Your task to perform on an android device: open app "Pluto TV - Live TV and Movies" (install if not already installed) and enter user name: "wools@yahoo.com" and password: "misplacing" Image 0: 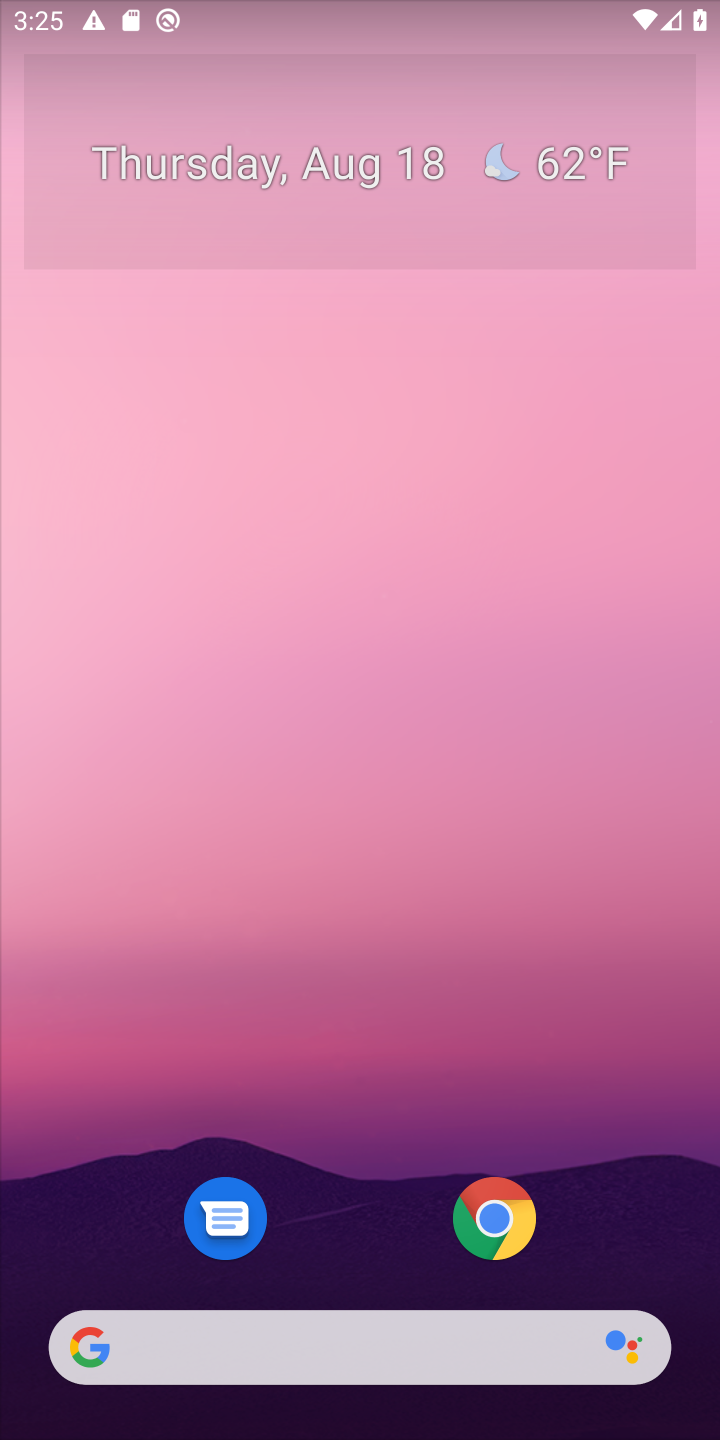
Step 0: drag from (334, 832) to (314, 384)
Your task to perform on an android device: open app "Pluto TV - Live TV and Movies" (install if not already installed) and enter user name: "wools@yahoo.com" and password: "misplacing" Image 1: 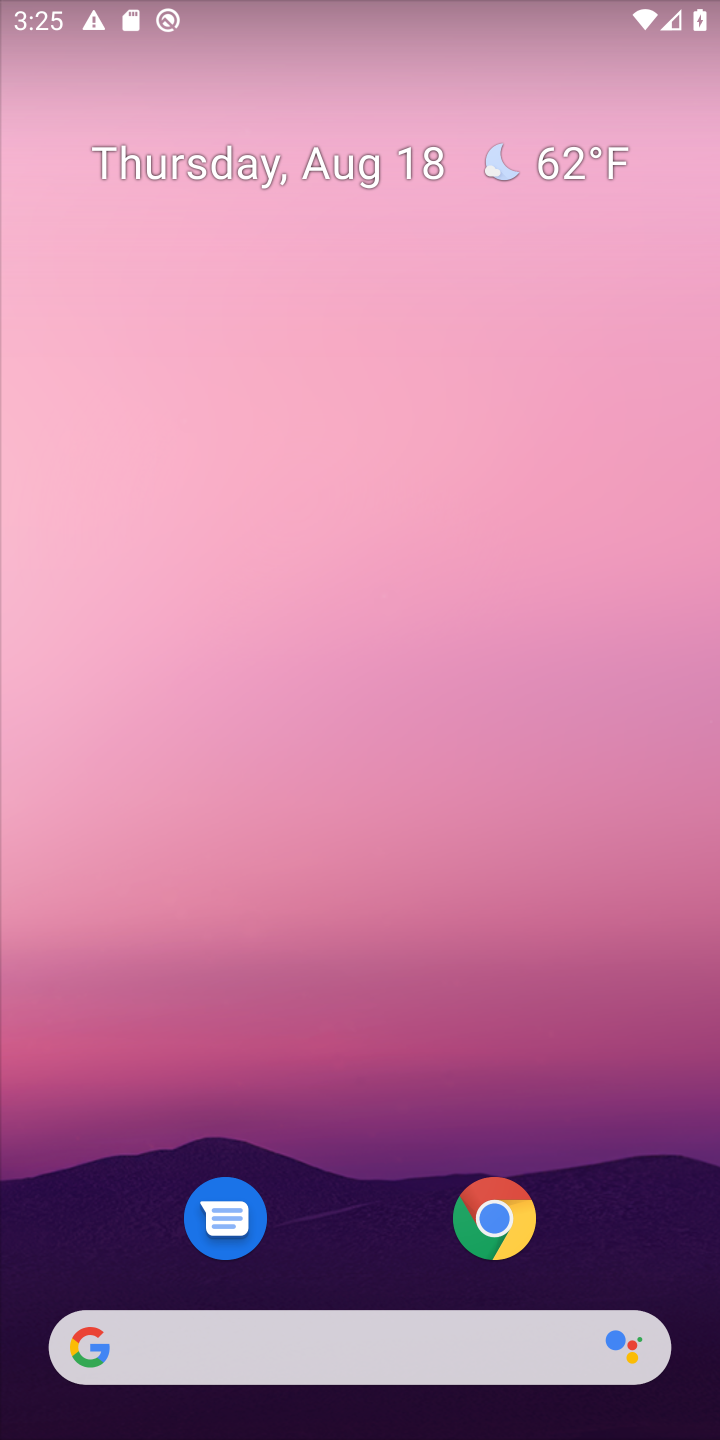
Step 1: drag from (370, 1137) to (367, 336)
Your task to perform on an android device: open app "Pluto TV - Live TV and Movies" (install if not already installed) and enter user name: "wools@yahoo.com" and password: "misplacing" Image 2: 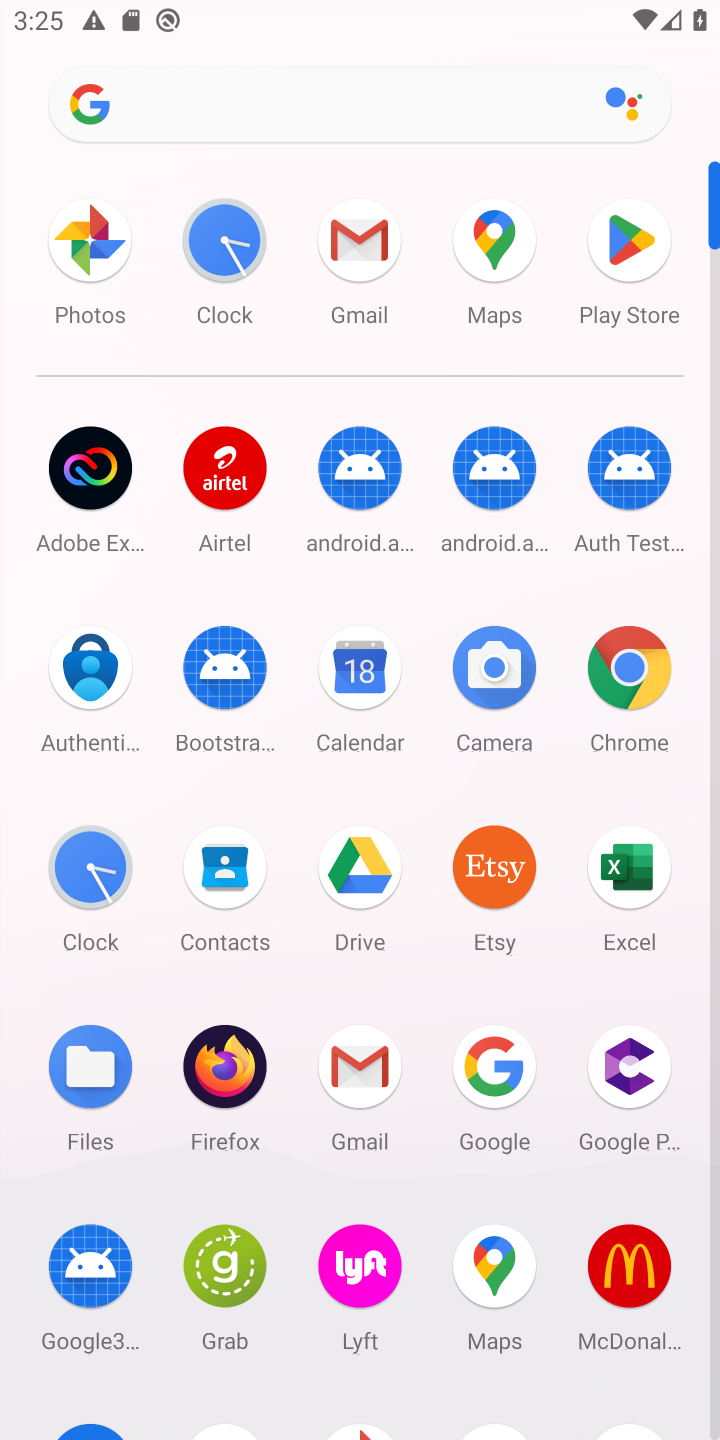
Step 2: click (628, 267)
Your task to perform on an android device: open app "Pluto TV - Live TV and Movies" (install if not already installed) and enter user name: "wools@yahoo.com" and password: "misplacing" Image 3: 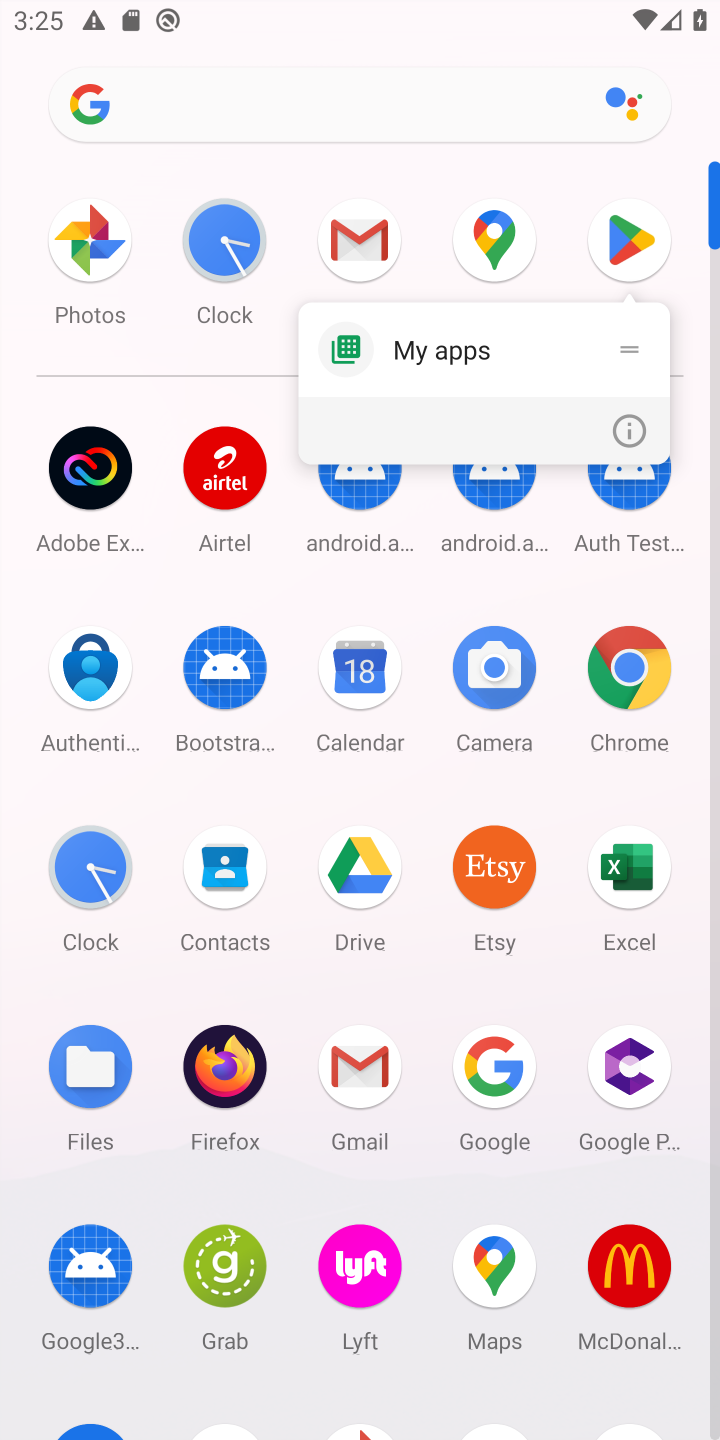
Step 3: click (615, 232)
Your task to perform on an android device: open app "Pluto TV - Live TV and Movies" (install if not already installed) and enter user name: "wools@yahoo.com" and password: "misplacing" Image 4: 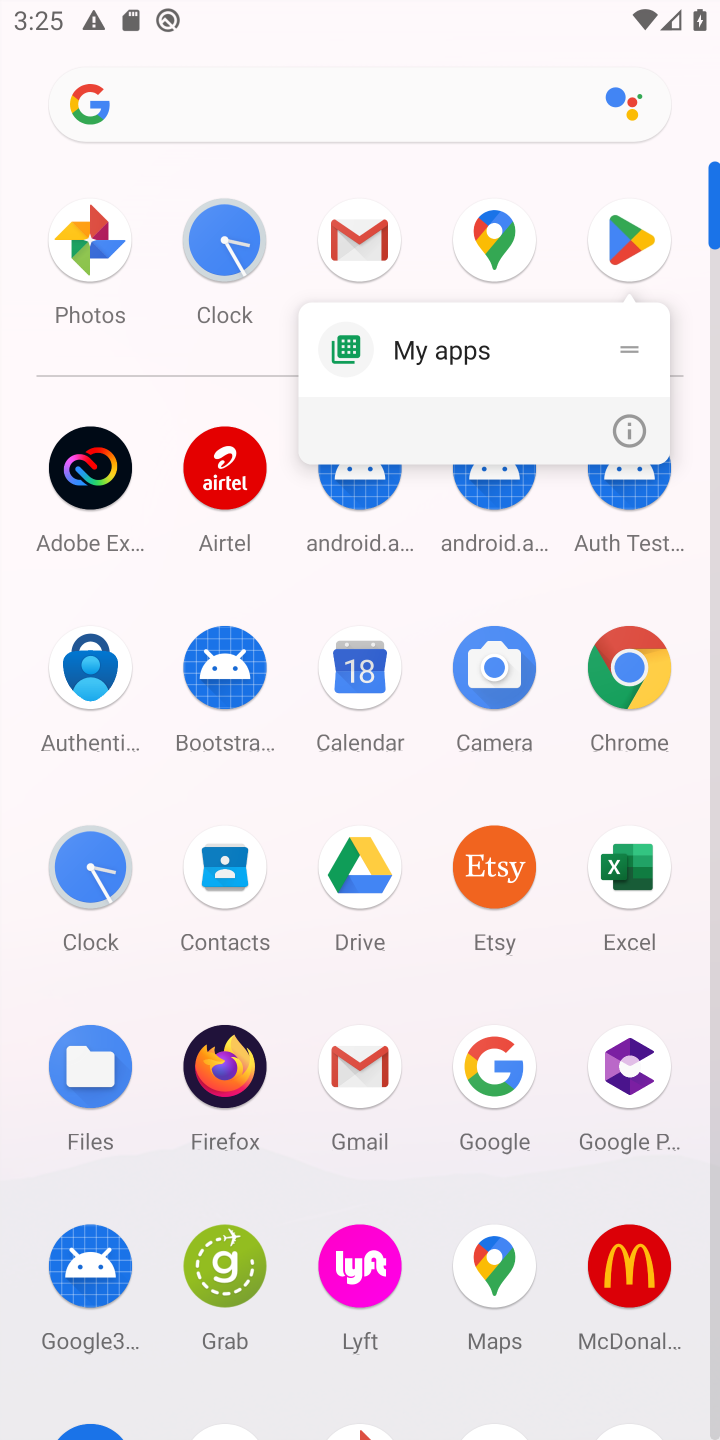
Step 4: click (615, 232)
Your task to perform on an android device: open app "Pluto TV - Live TV and Movies" (install if not already installed) and enter user name: "wools@yahoo.com" and password: "misplacing" Image 5: 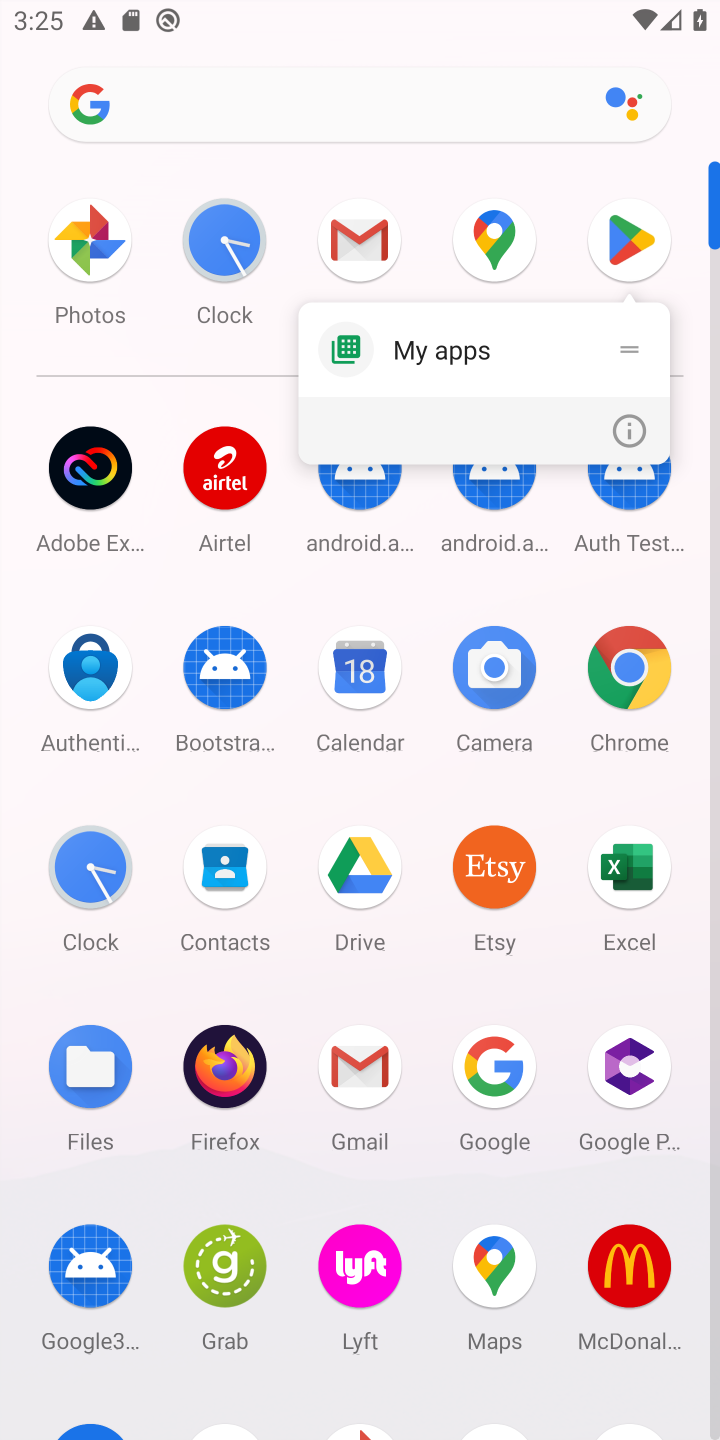
Step 5: click (615, 232)
Your task to perform on an android device: open app "Pluto TV - Live TV and Movies" (install if not already installed) and enter user name: "wools@yahoo.com" and password: "misplacing" Image 6: 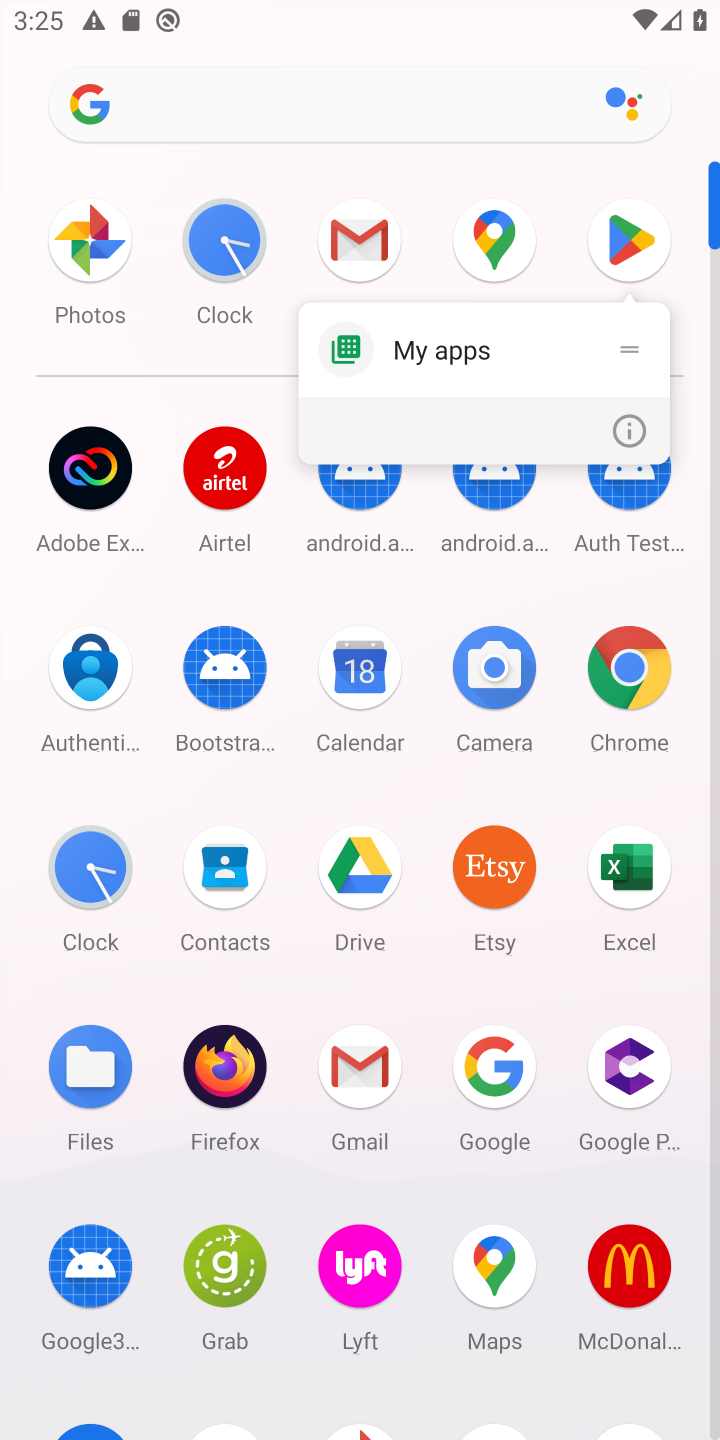
Step 6: click (616, 241)
Your task to perform on an android device: open app "Pluto TV - Live TV and Movies" (install if not already installed) and enter user name: "wools@yahoo.com" and password: "misplacing" Image 7: 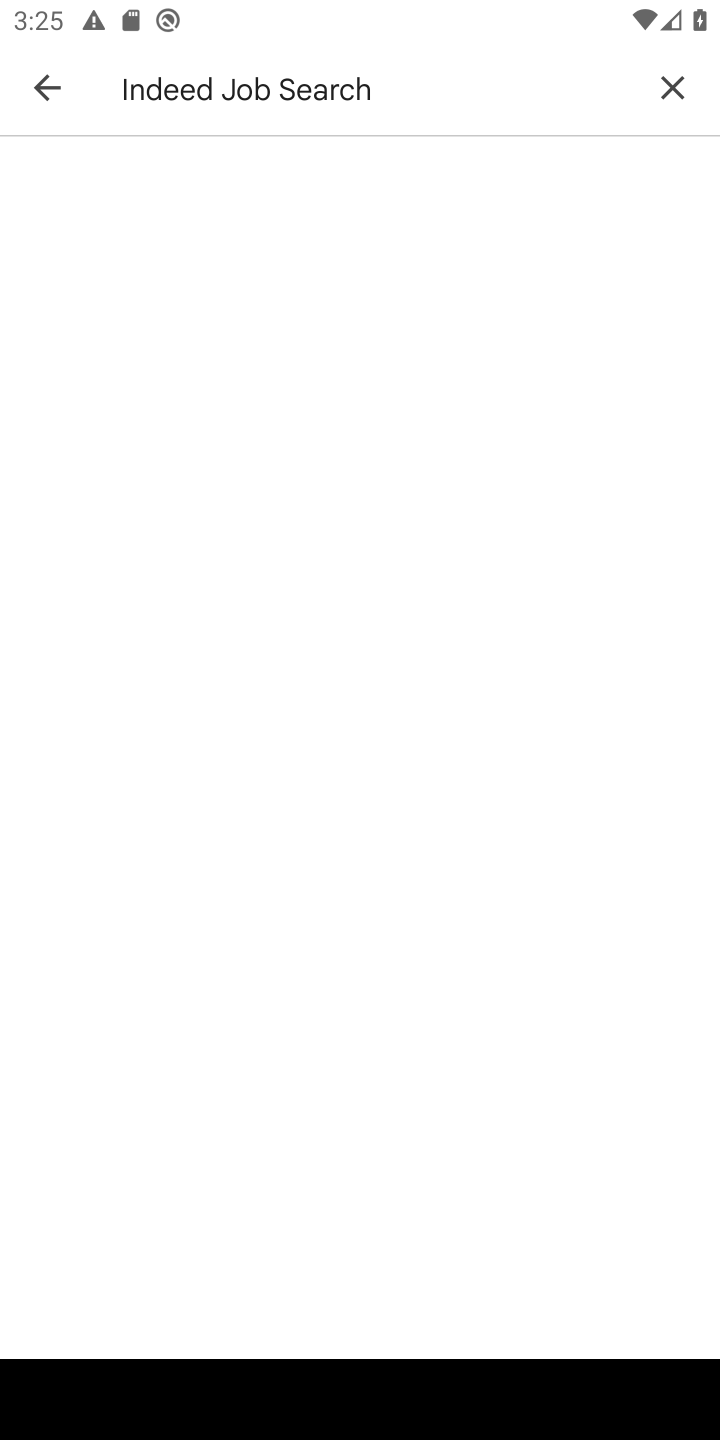
Step 7: click (665, 68)
Your task to perform on an android device: open app "Pluto TV - Live TV and Movies" (install if not already installed) and enter user name: "wools@yahoo.com" and password: "misplacing" Image 8: 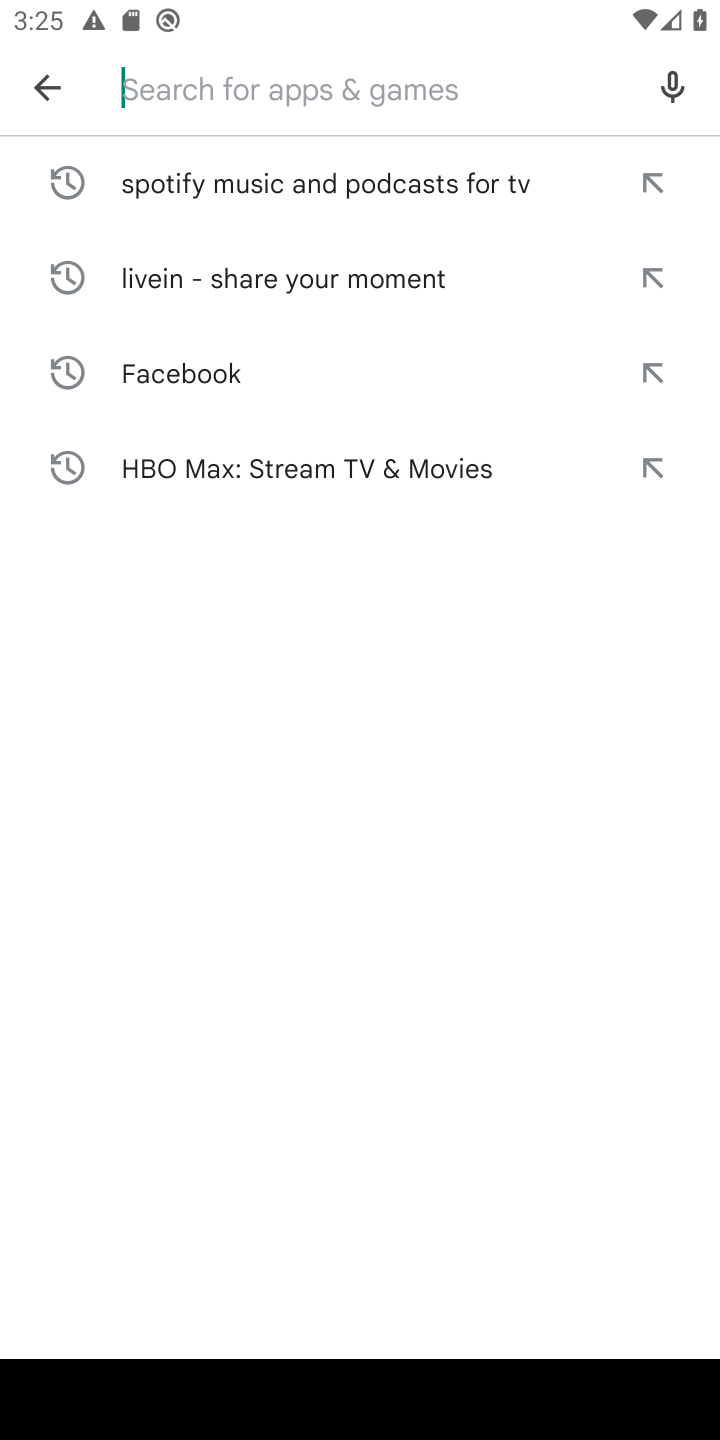
Step 8: type "Pluto TV - Live TV and Movies"
Your task to perform on an android device: open app "Pluto TV - Live TV and Movies" (install if not already installed) and enter user name: "wools@yahoo.com" and password: "misplacing" Image 9: 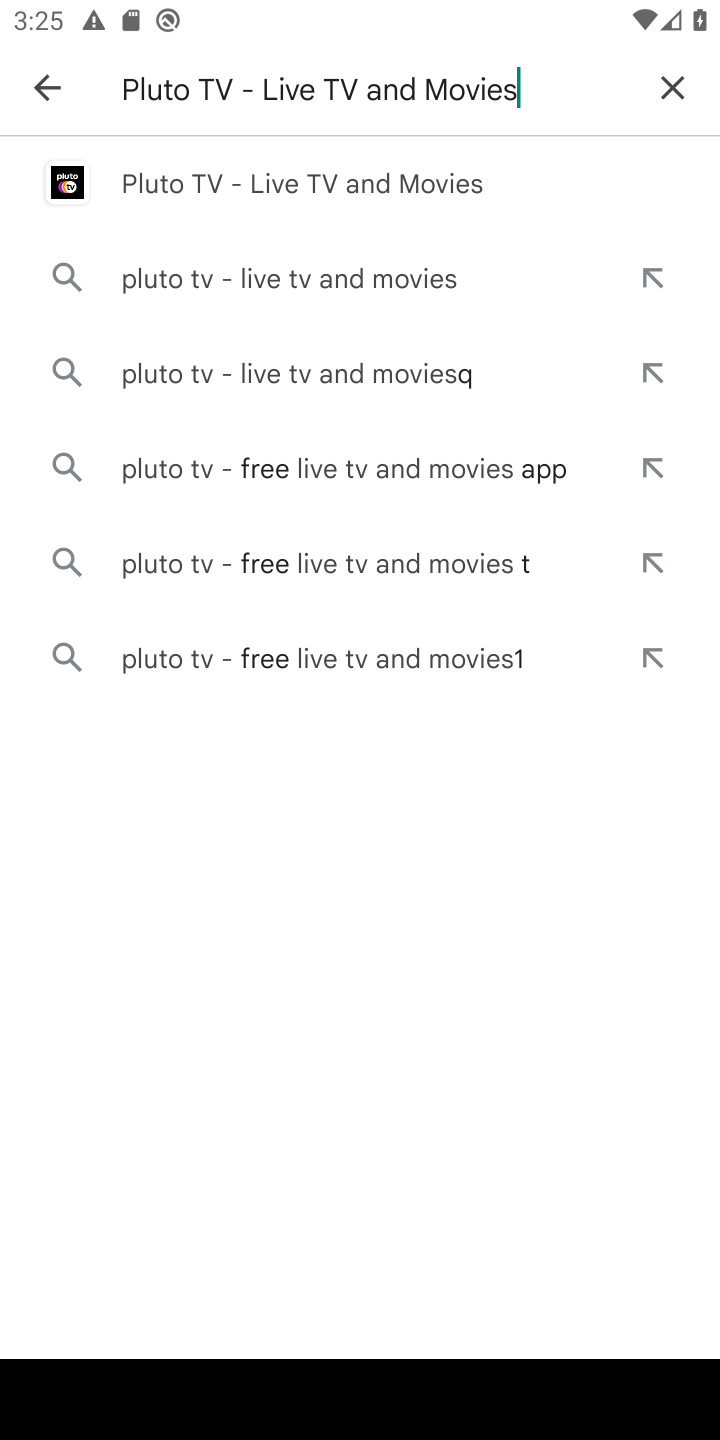
Step 9: type ""
Your task to perform on an android device: open app "Pluto TV - Live TV and Movies" (install if not already installed) and enter user name: "wools@yahoo.com" and password: "misplacing" Image 10: 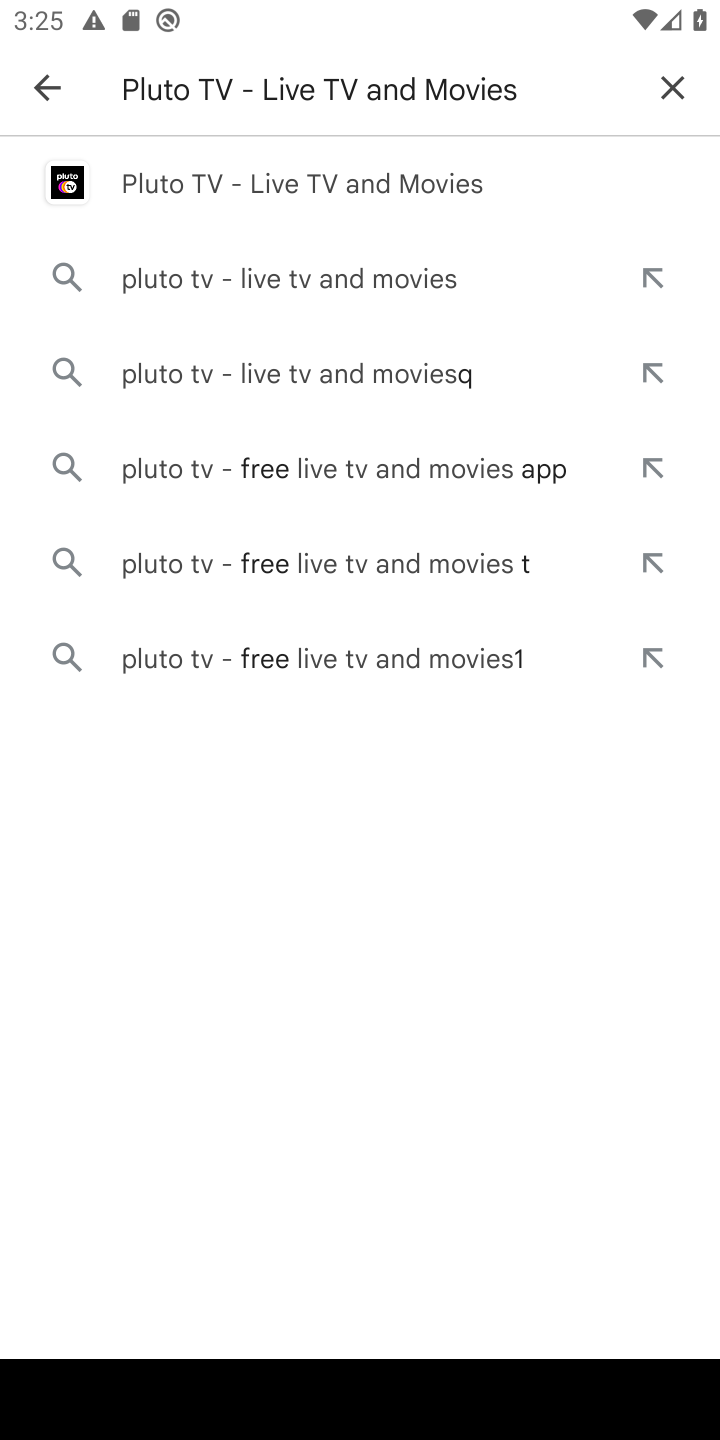
Step 10: click (272, 175)
Your task to perform on an android device: open app "Pluto TV - Live TV and Movies" (install if not already installed) and enter user name: "wools@yahoo.com" and password: "misplacing" Image 11: 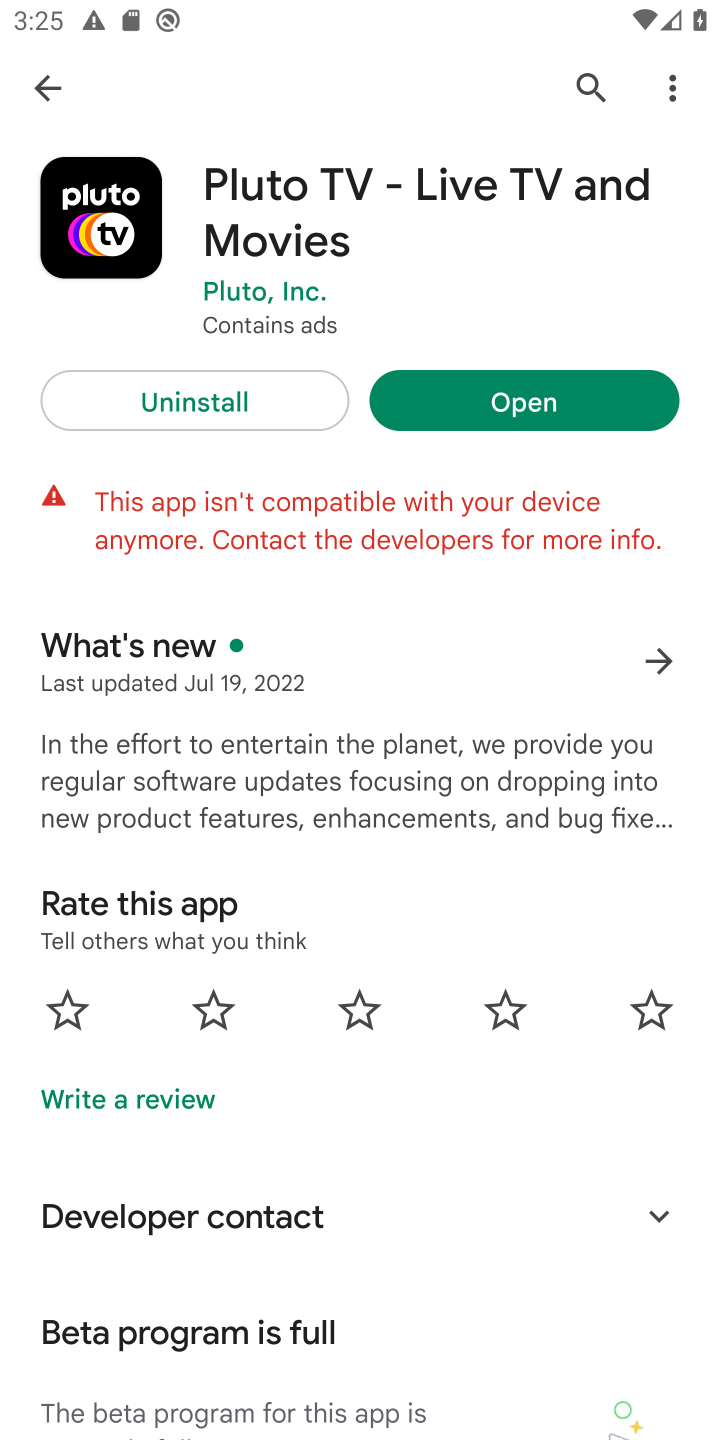
Step 11: click (504, 405)
Your task to perform on an android device: open app "Pluto TV - Live TV and Movies" (install if not already installed) and enter user name: "wools@yahoo.com" and password: "misplacing" Image 12: 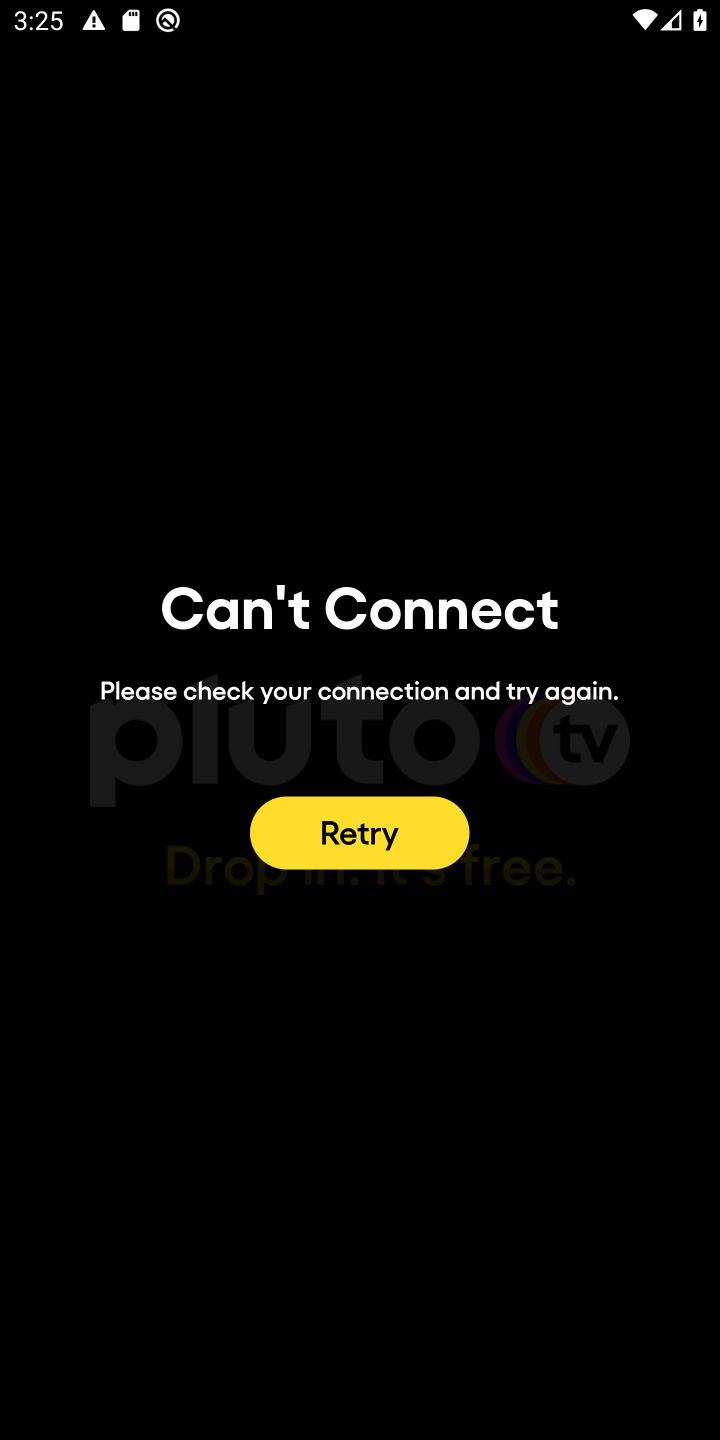
Step 12: task complete